Your task to perform on an android device: Open my contact list Image 0: 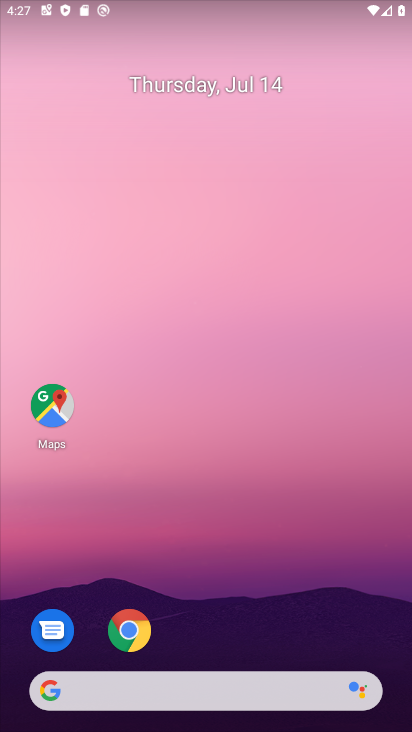
Step 0: drag from (208, 711) to (315, 9)
Your task to perform on an android device: Open my contact list Image 1: 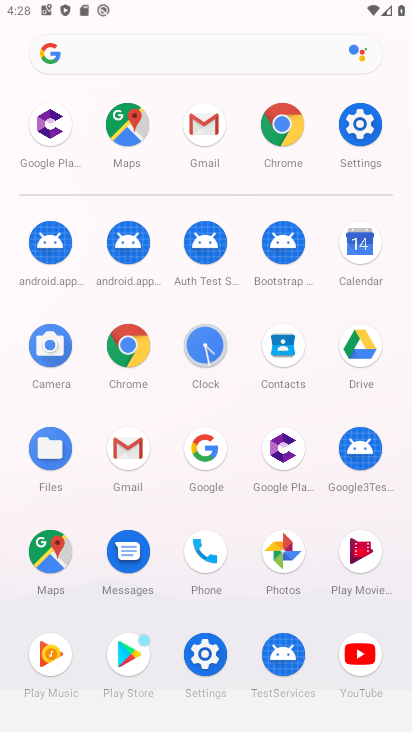
Step 1: click (284, 352)
Your task to perform on an android device: Open my contact list Image 2: 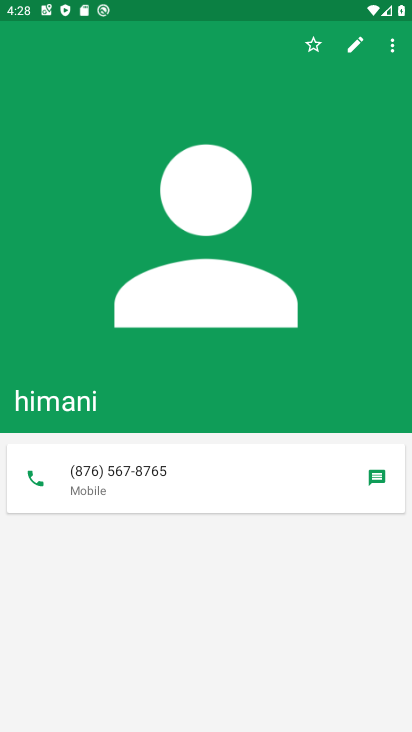
Step 2: task complete